Your task to perform on an android device: open app "Flipkart Online Shopping App" (install if not already installed) Image 0: 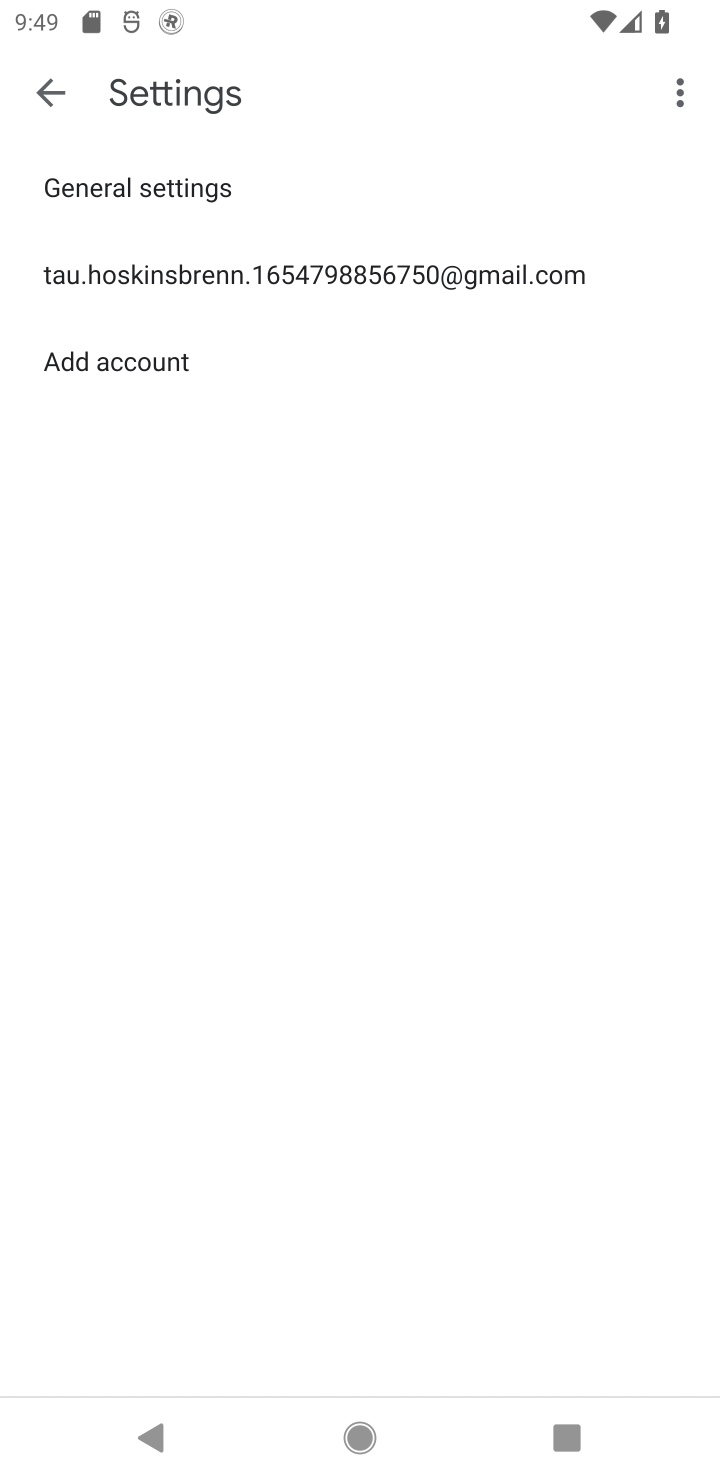
Step 0: press home button
Your task to perform on an android device: open app "Flipkart Online Shopping App" (install if not already installed) Image 1: 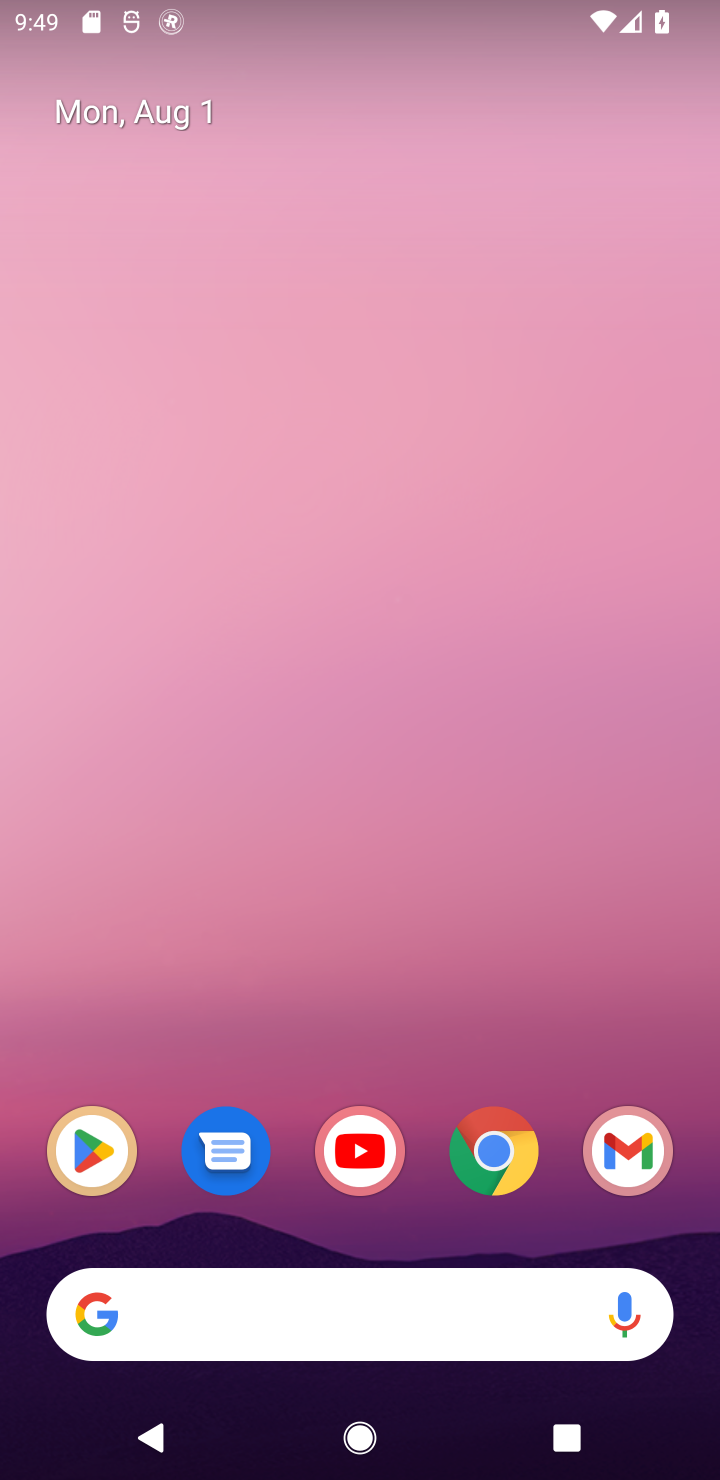
Step 1: click (105, 1139)
Your task to perform on an android device: open app "Flipkart Online Shopping App" (install if not already installed) Image 2: 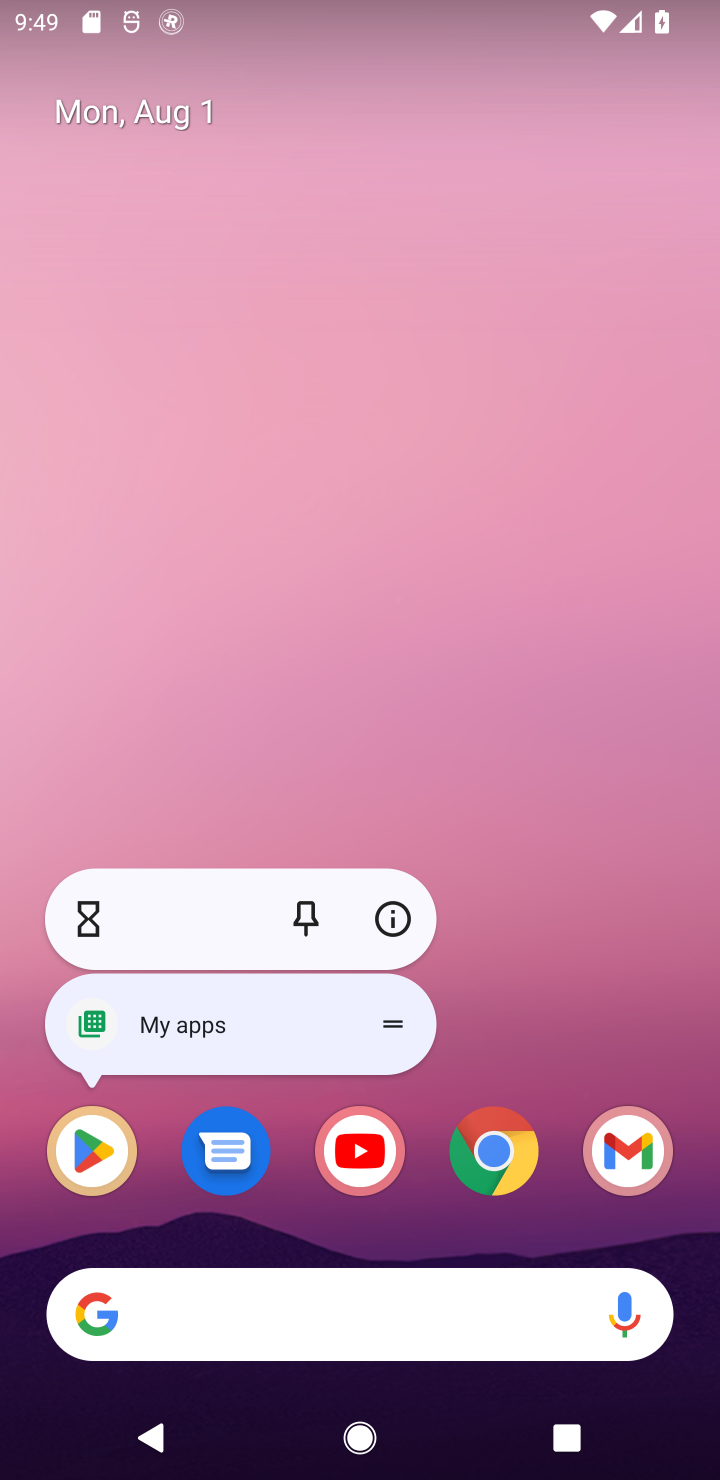
Step 2: click (121, 1127)
Your task to perform on an android device: open app "Flipkart Online Shopping App" (install if not already installed) Image 3: 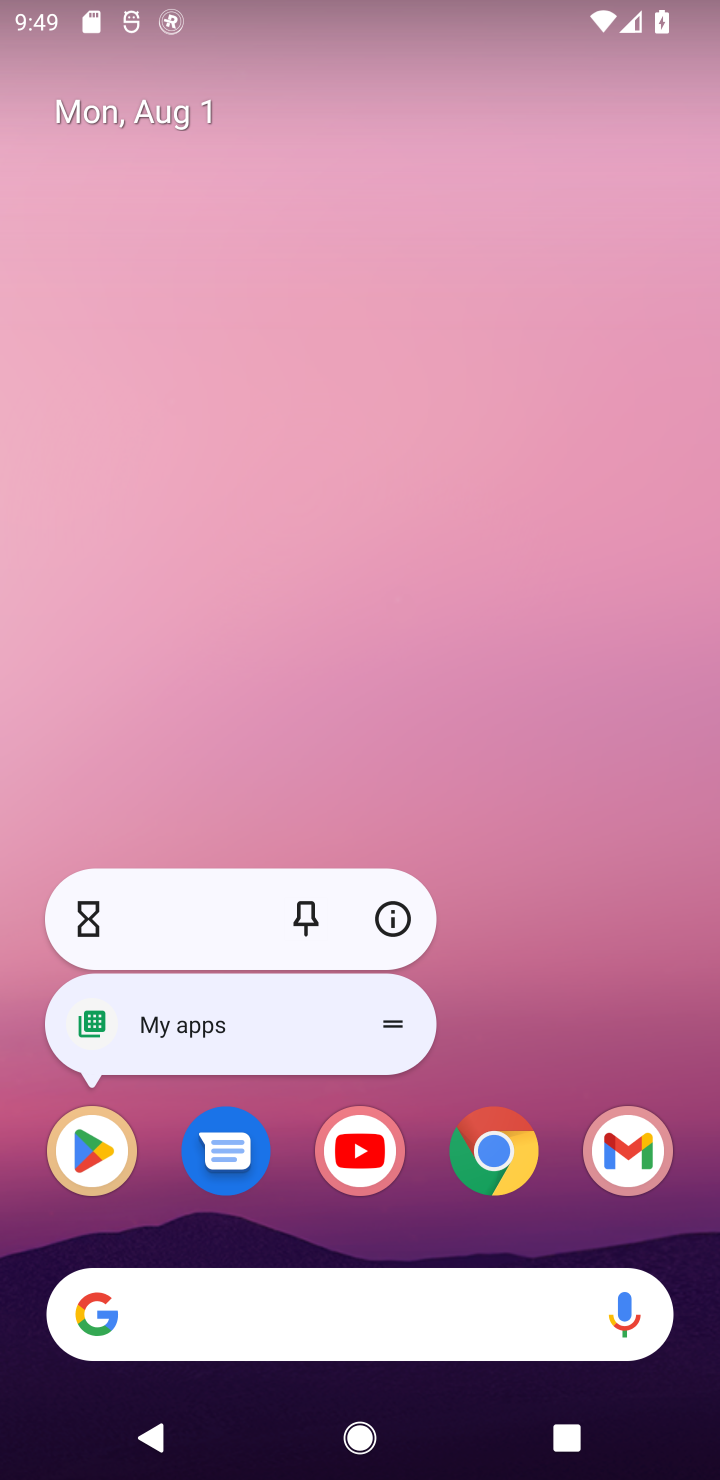
Step 3: click (118, 1129)
Your task to perform on an android device: open app "Flipkart Online Shopping App" (install if not already installed) Image 4: 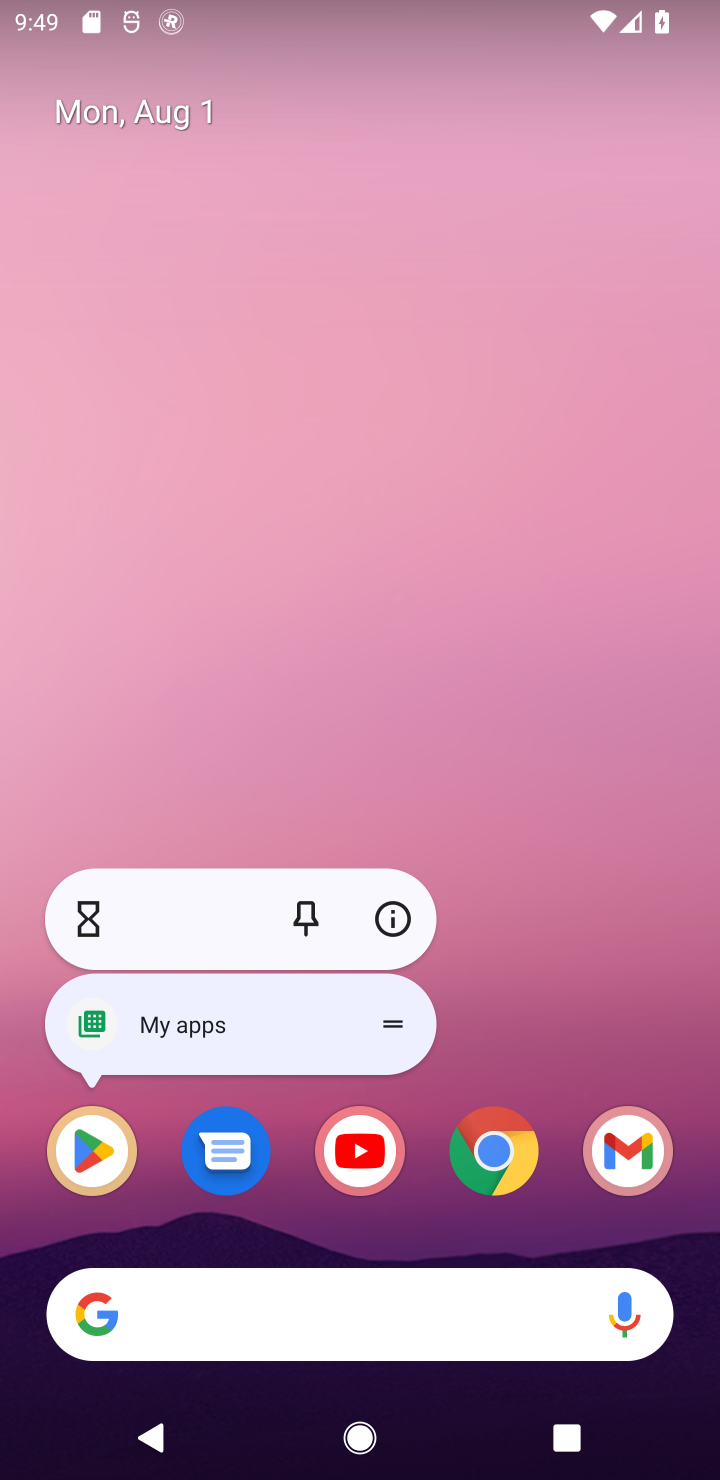
Step 4: click (118, 1129)
Your task to perform on an android device: open app "Flipkart Online Shopping App" (install if not already installed) Image 5: 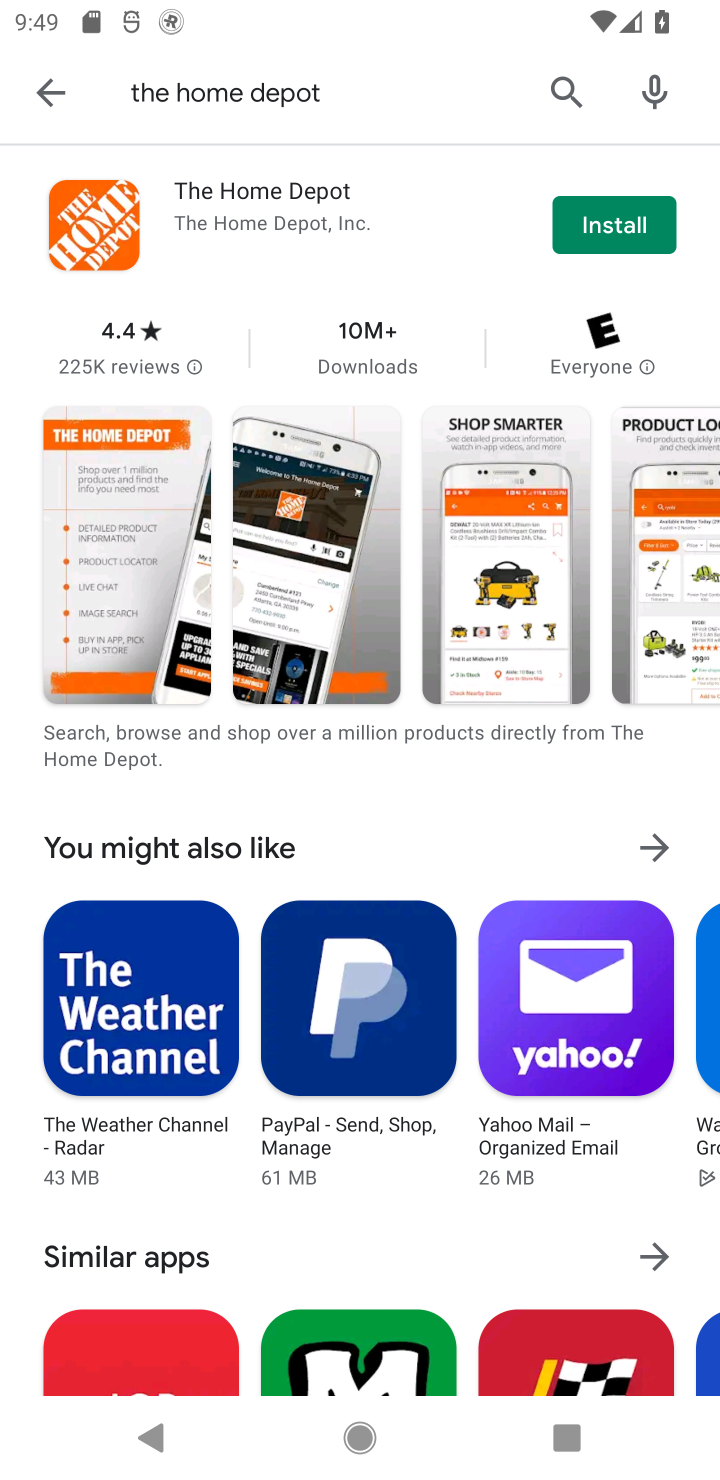
Step 5: click (559, 106)
Your task to perform on an android device: open app "Flipkart Online Shopping App" (install if not already installed) Image 6: 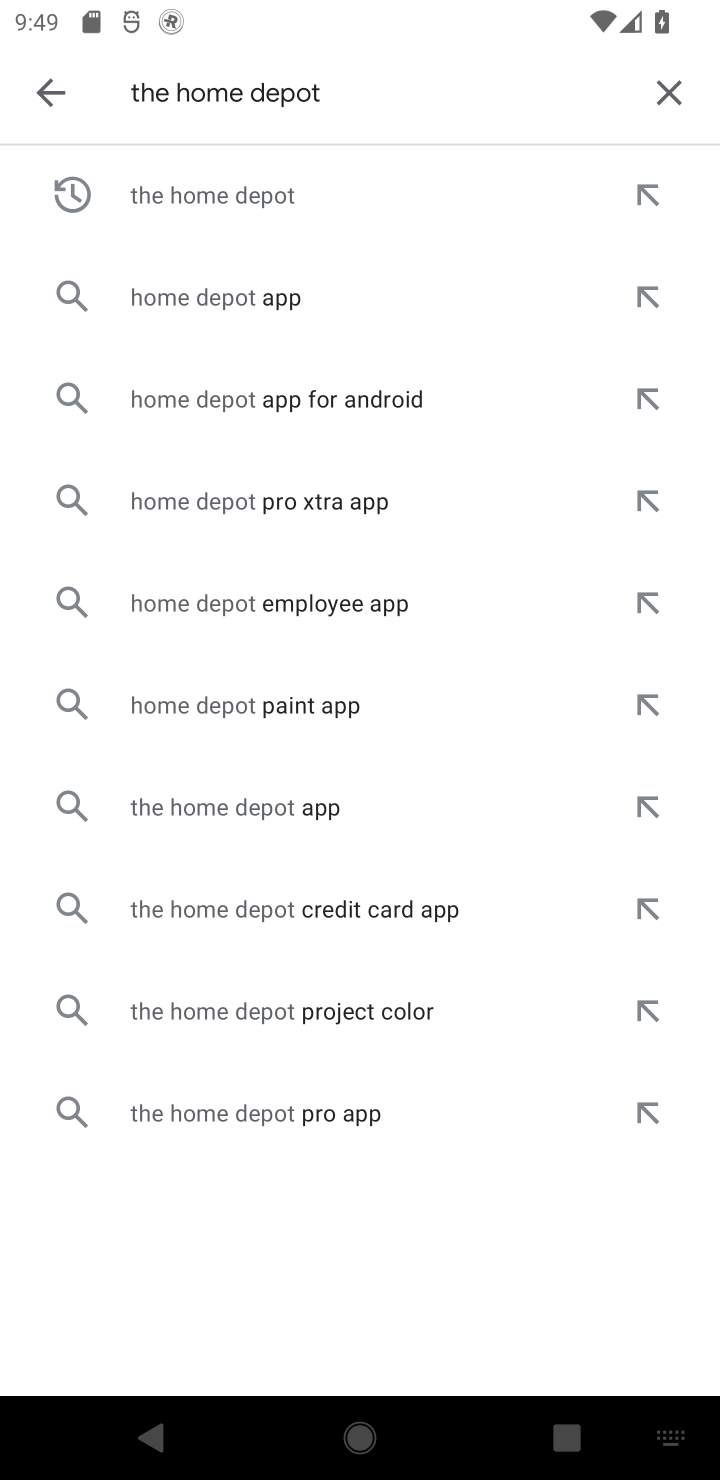
Step 6: click (669, 92)
Your task to perform on an android device: open app "Flipkart Online Shopping App" (install if not already installed) Image 7: 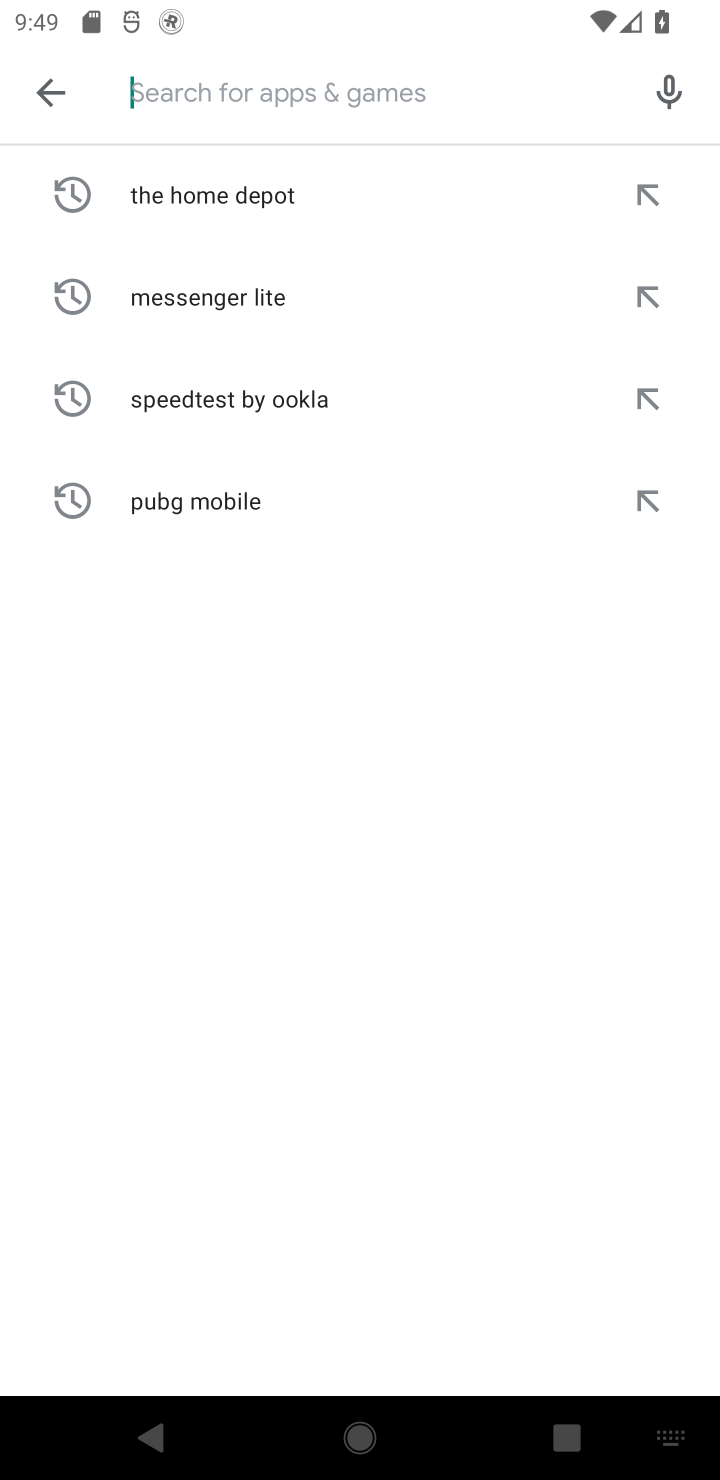
Step 7: type "Flipkart Online Shopping App"
Your task to perform on an android device: open app "Flipkart Online Shopping App" (install if not already installed) Image 8: 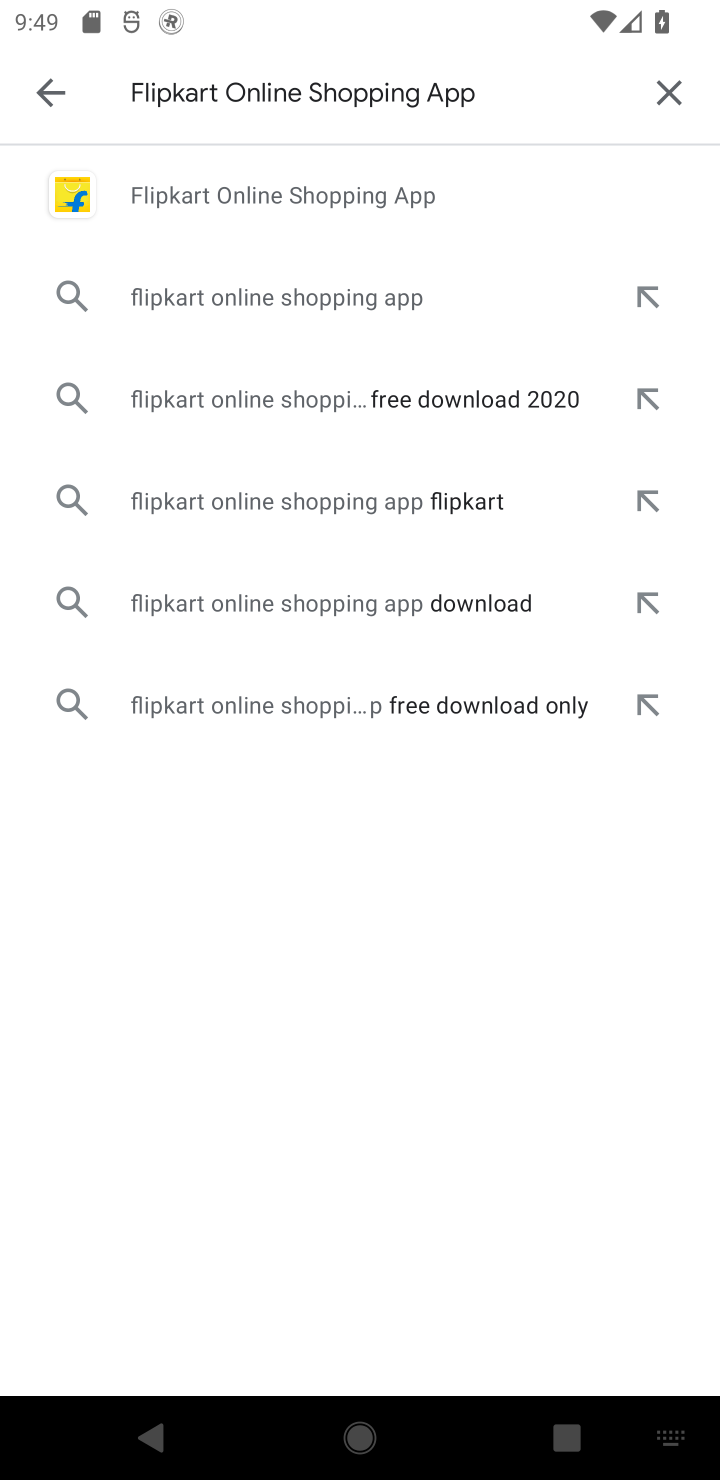
Step 8: click (266, 182)
Your task to perform on an android device: open app "Flipkart Online Shopping App" (install if not already installed) Image 9: 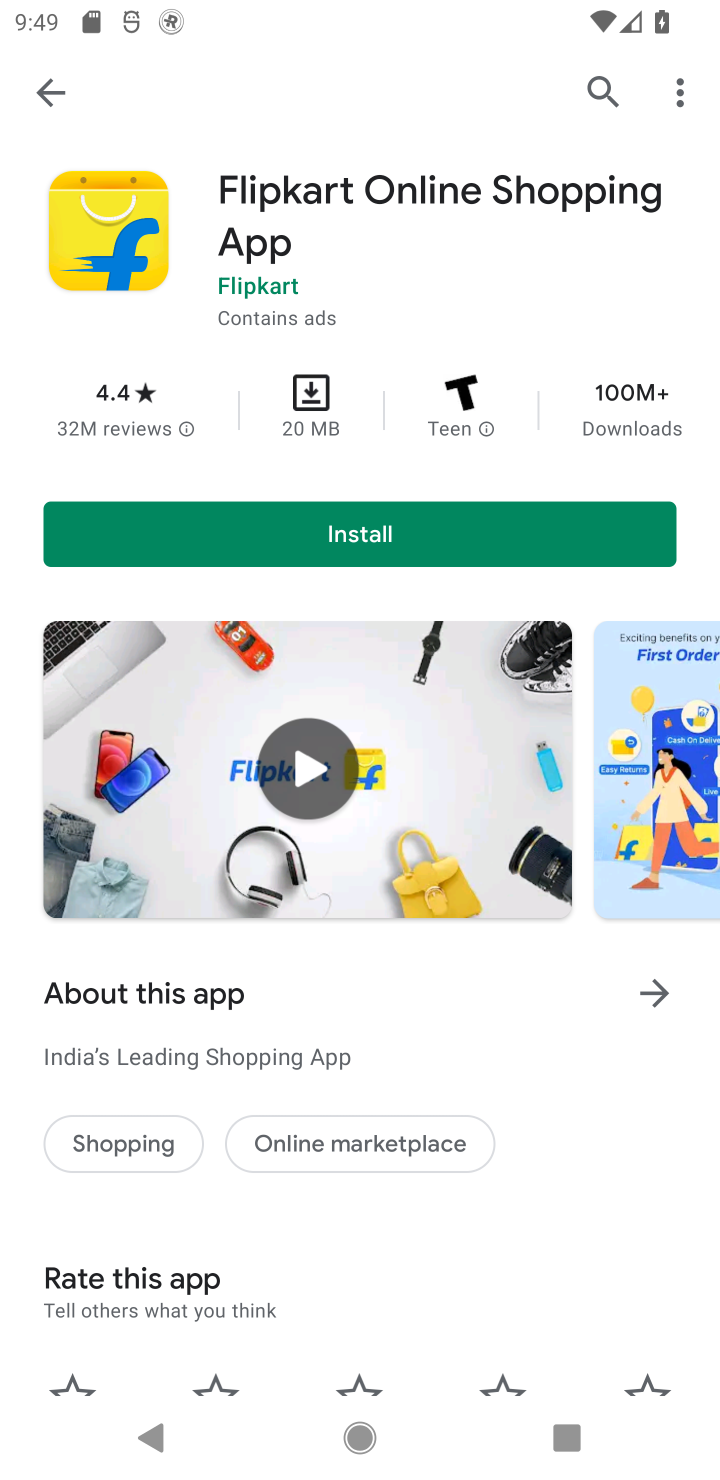
Step 9: click (355, 538)
Your task to perform on an android device: open app "Flipkart Online Shopping App" (install if not already installed) Image 10: 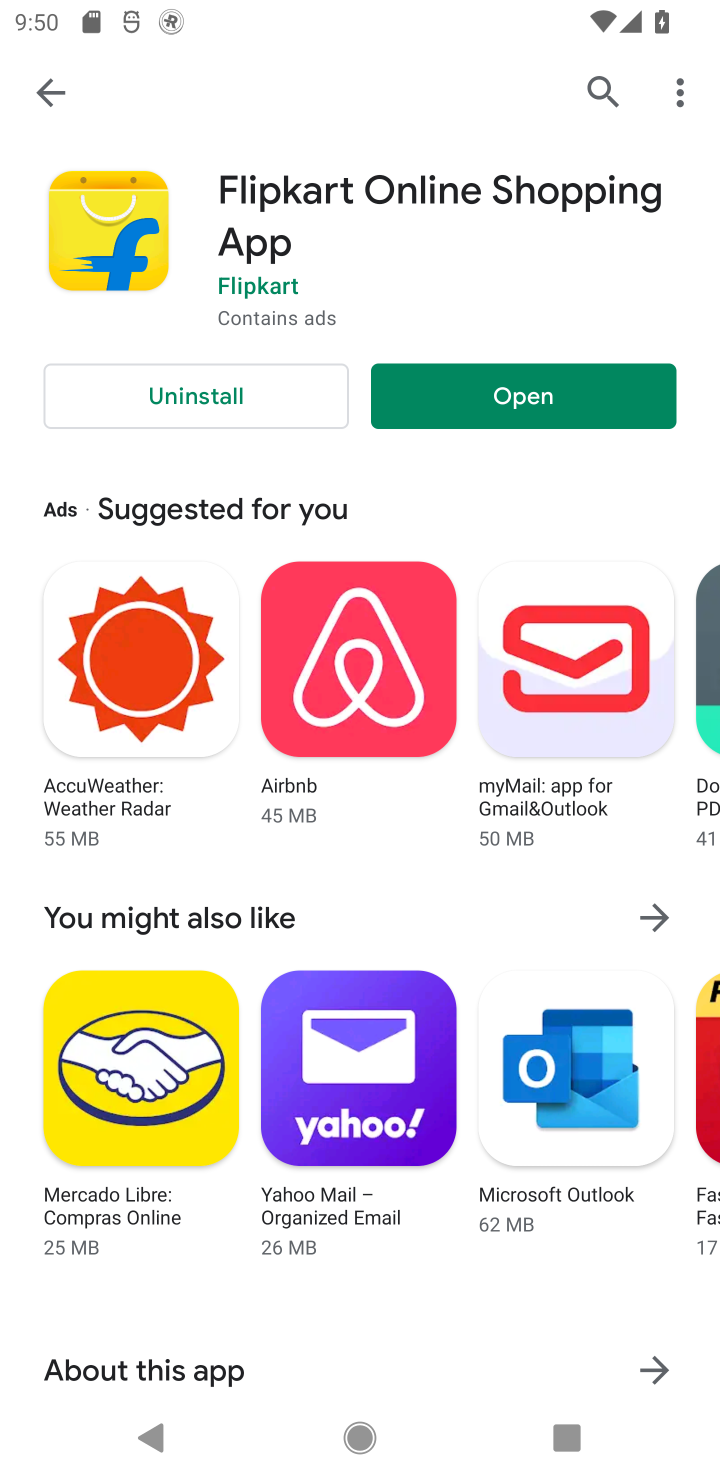
Step 10: click (493, 398)
Your task to perform on an android device: open app "Flipkart Online Shopping App" (install if not already installed) Image 11: 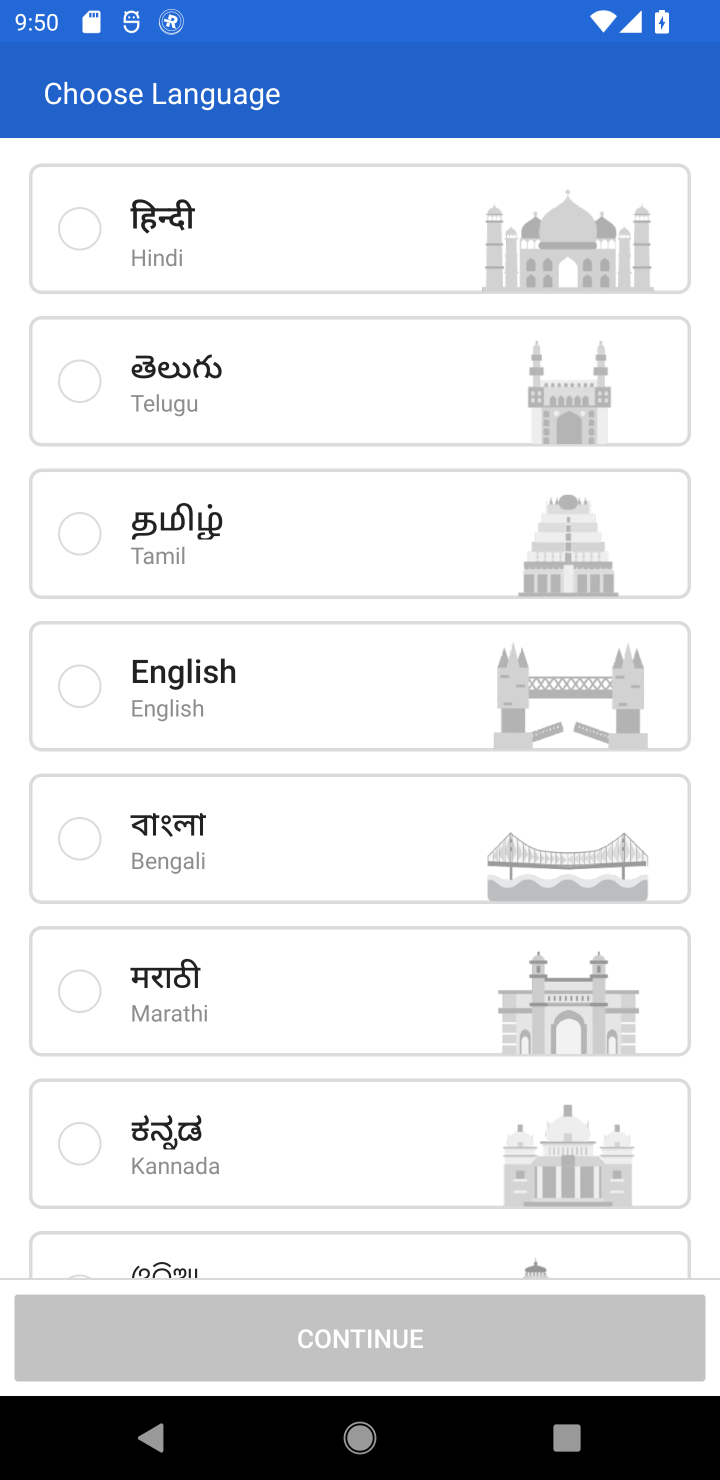
Step 11: task complete